Your task to perform on an android device: Open maps Image 0: 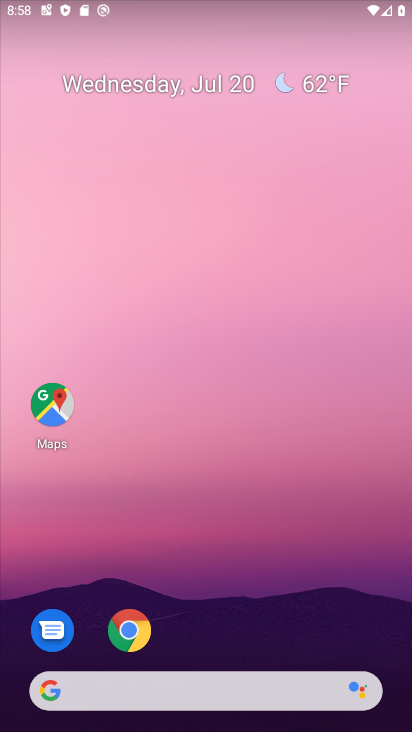
Step 0: click (53, 397)
Your task to perform on an android device: Open maps Image 1: 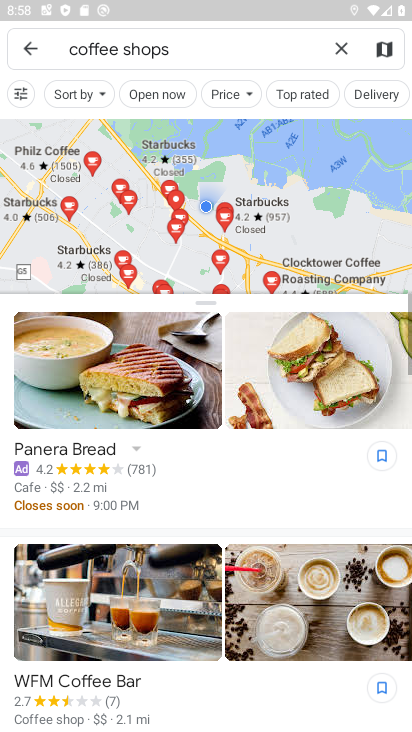
Step 1: task complete